Your task to perform on an android device: Search for the best rated 150-piece drill bit set on Aliexpress. Image 0: 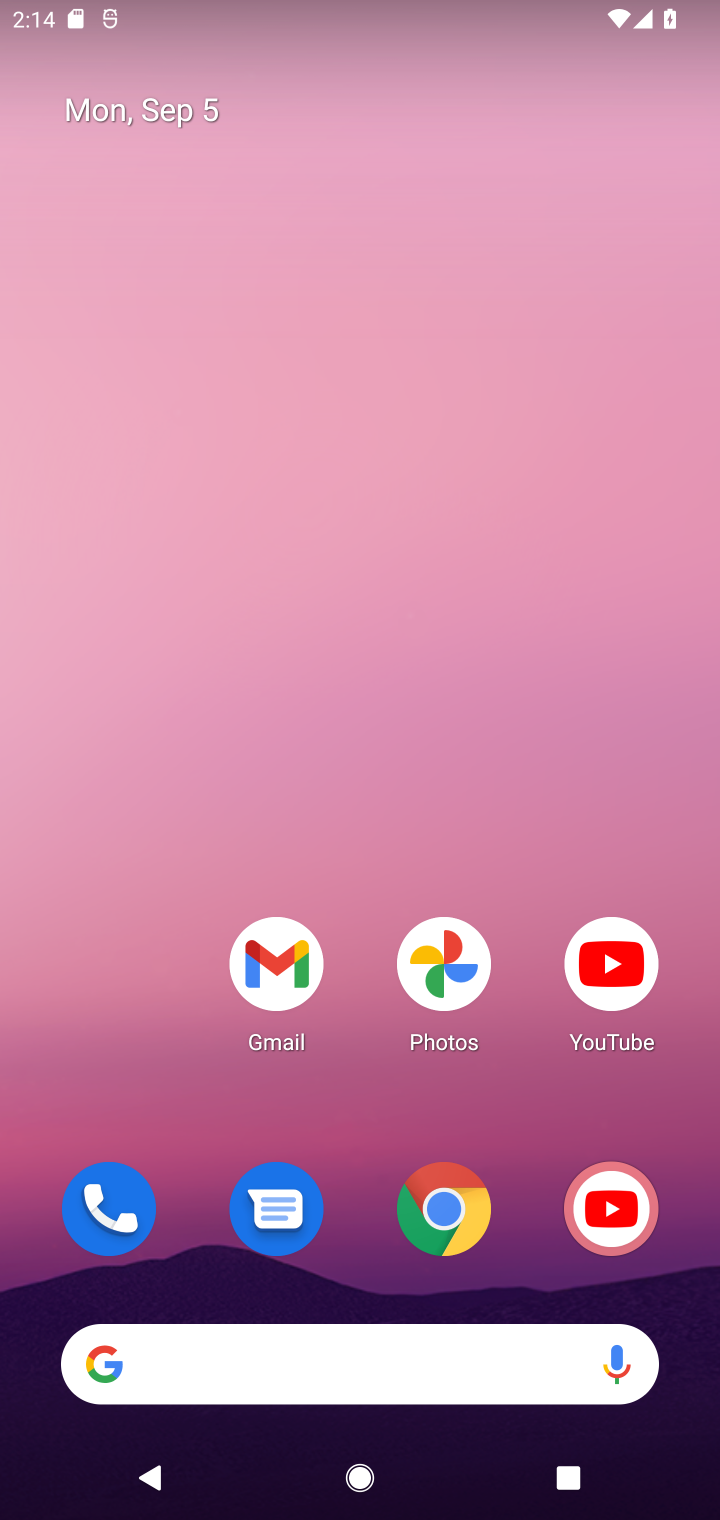
Step 0: drag from (273, 1314) to (409, 294)
Your task to perform on an android device: Search for the best rated 150-piece drill bit set on Aliexpress. Image 1: 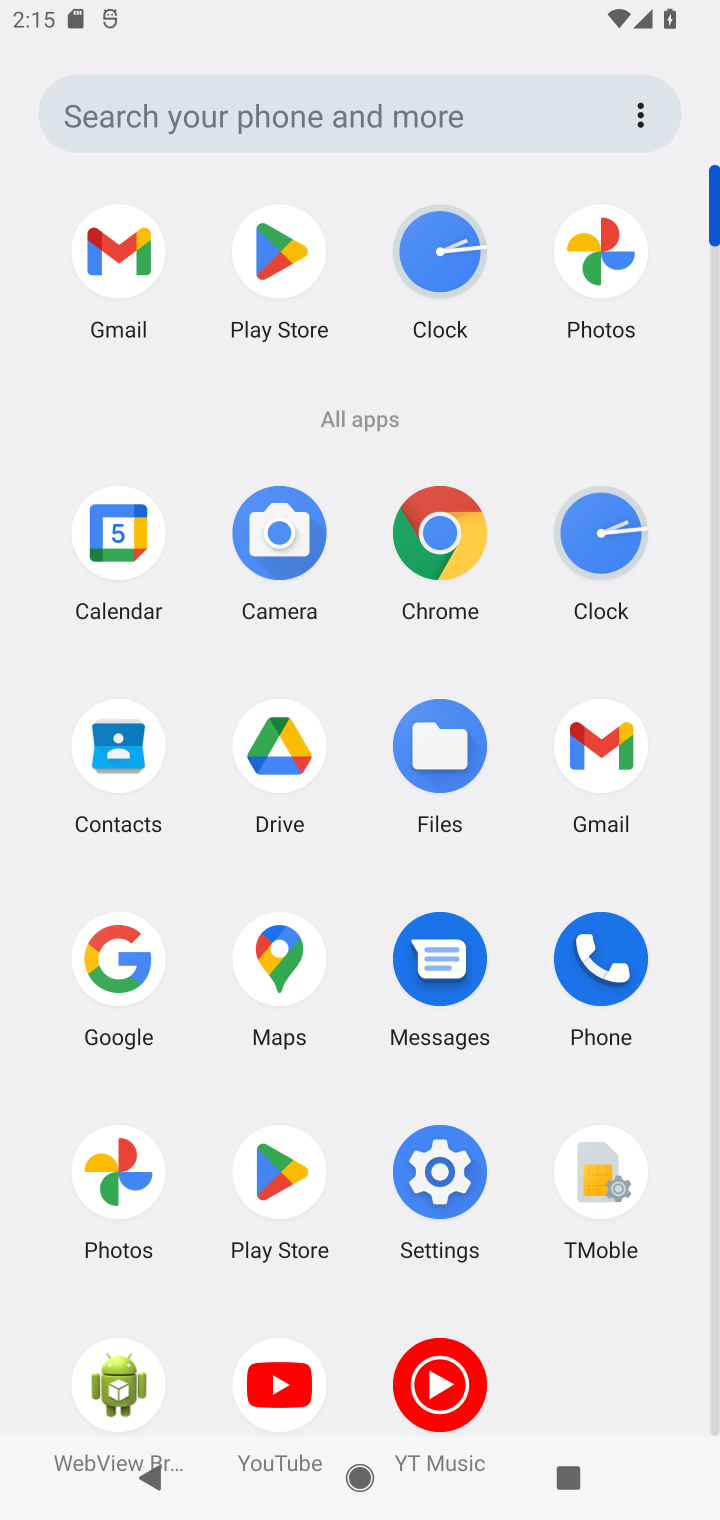
Step 1: click (112, 974)
Your task to perform on an android device: Search for the best rated 150-piece drill bit set on Aliexpress. Image 2: 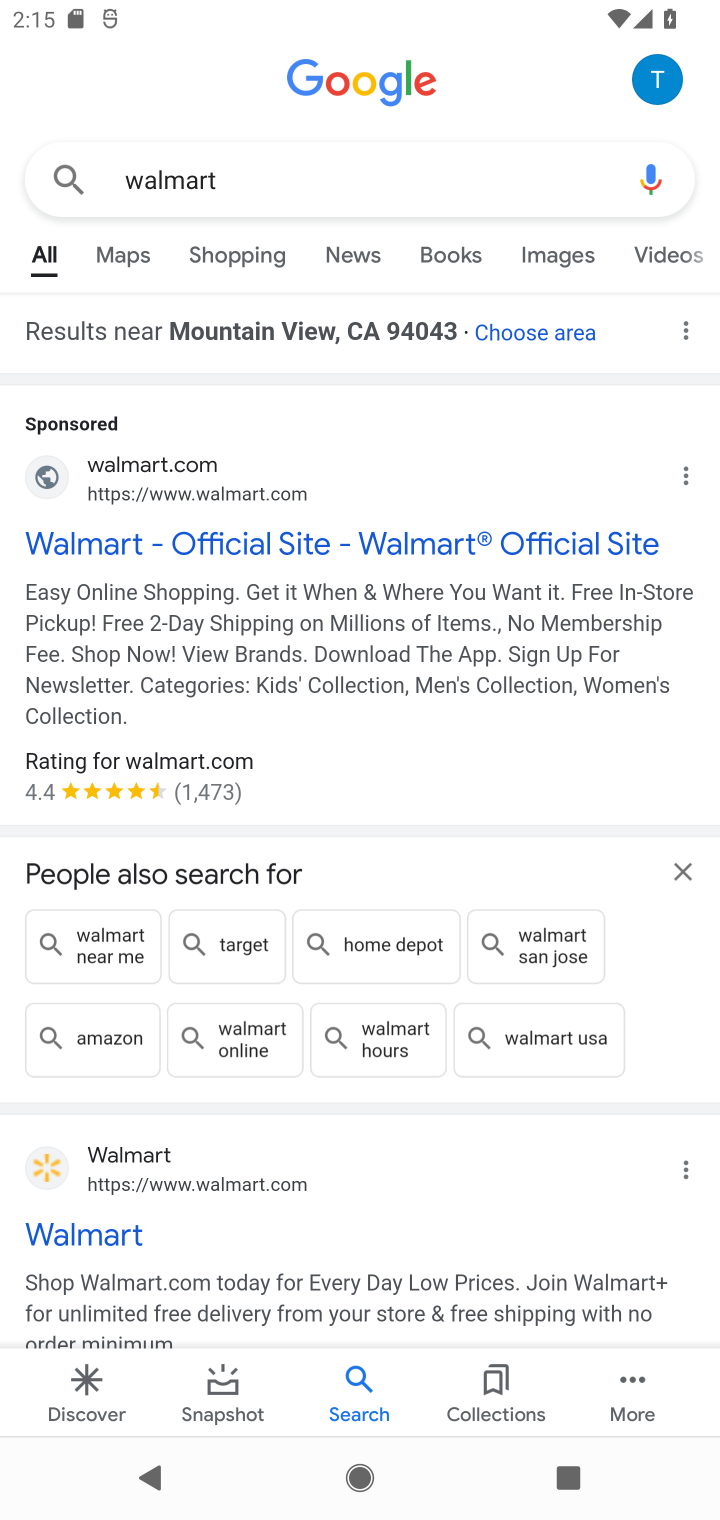
Step 2: click (245, 178)
Your task to perform on an android device: Search for the best rated 150-piece drill bit set on Aliexpress. Image 3: 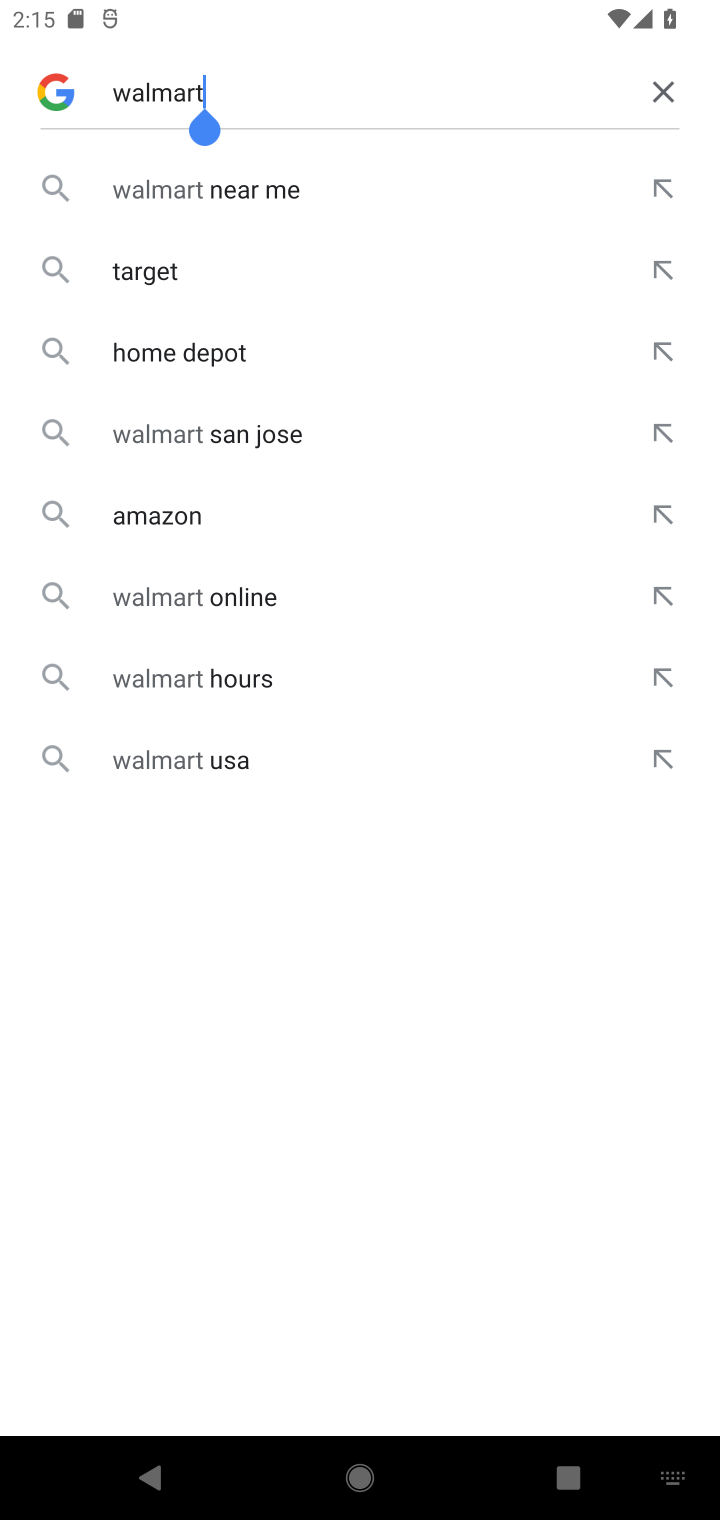
Step 3: click (668, 91)
Your task to perform on an android device: Search for the best rated 150-piece drill bit set on Aliexpress. Image 4: 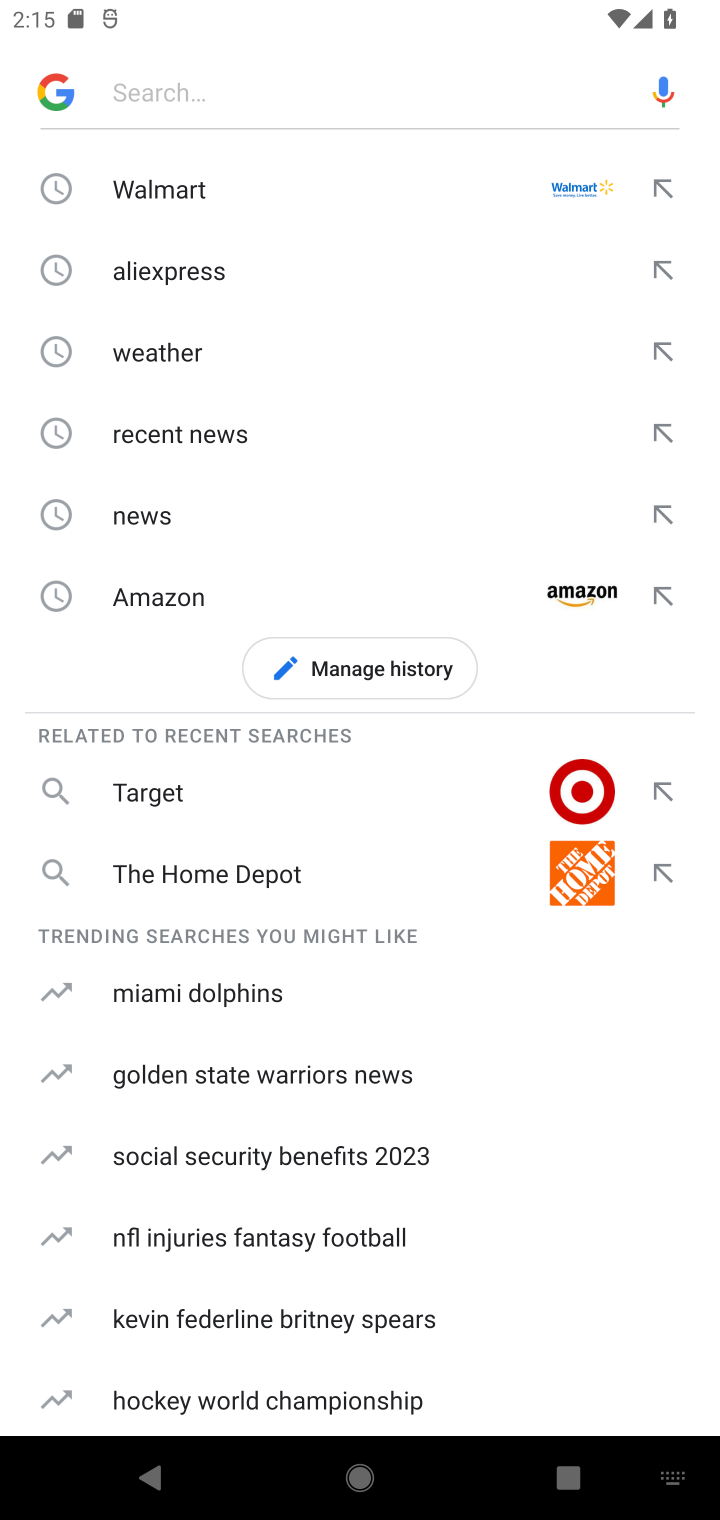
Step 4: type "Aliexpress."
Your task to perform on an android device: Search for the best rated 150-piece drill bit set on Aliexpress. Image 5: 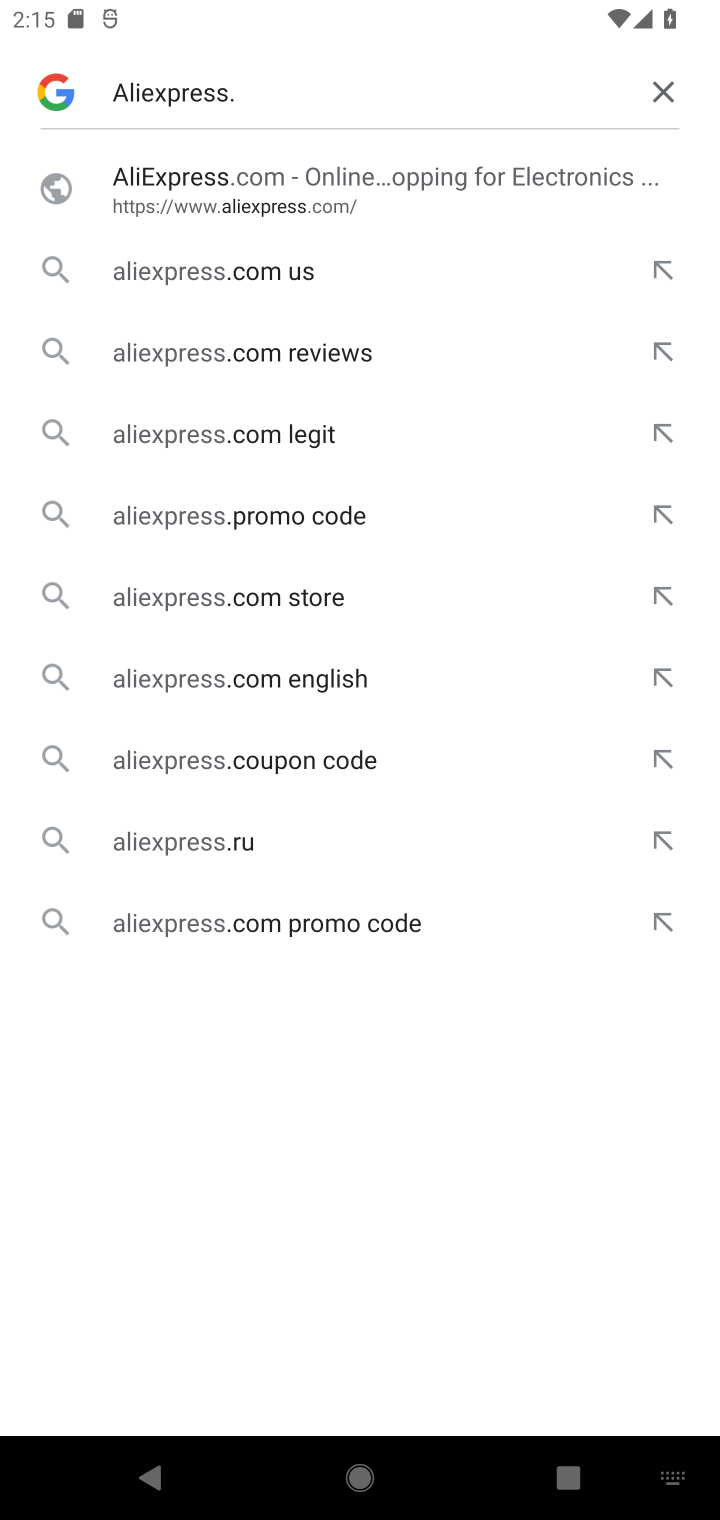
Step 5: click (239, 176)
Your task to perform on an android device: Search for the best rated 150-piece drill bit set on Aliexpress. Image 6: 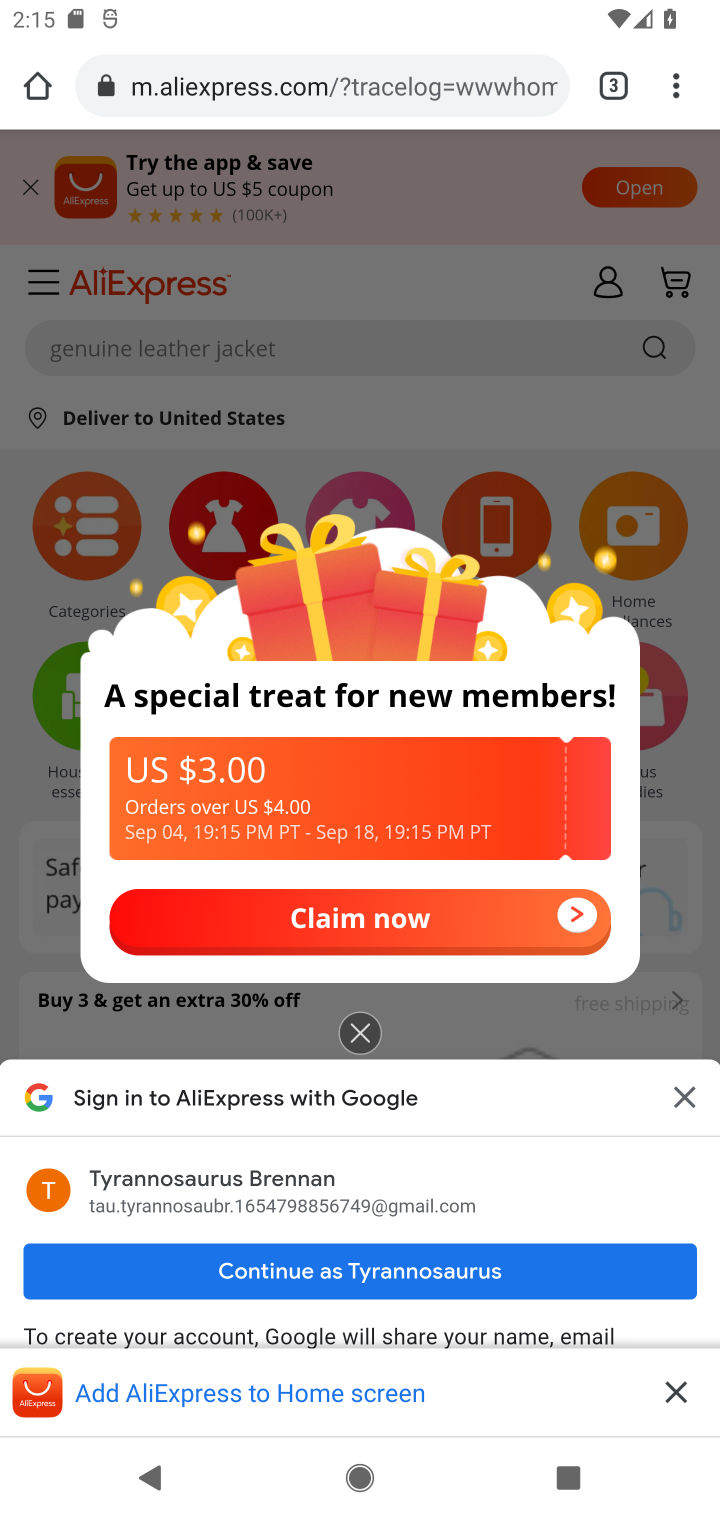
Step 6: click (171, 359)
Your task to perform on an android device: Search for the best rated 150-piece drill bit set on Aliexpress. Image 7: 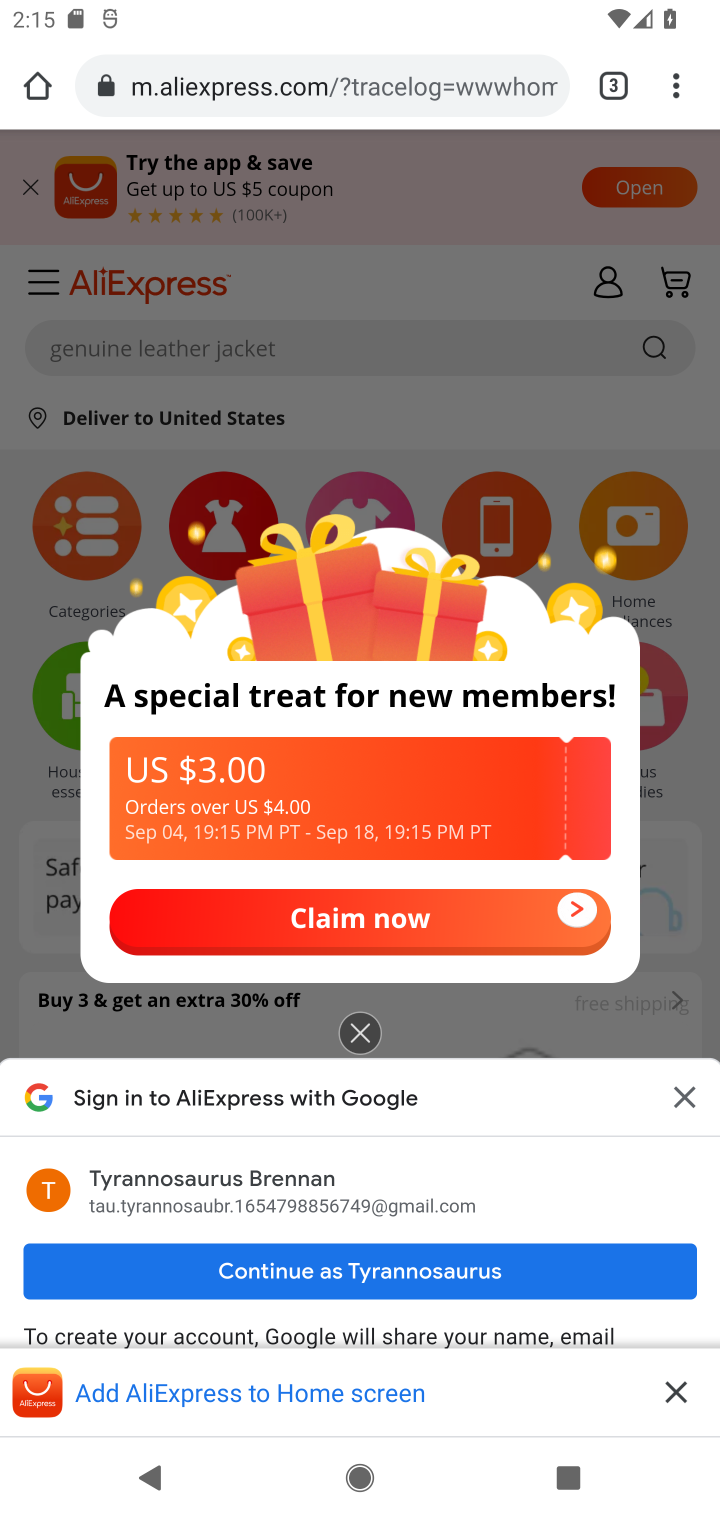
Step 7: click (360, 1036)
Your task to perform on an android device: Search for the best rated 150-piece drill bit set on Aliexpress. Image 8: 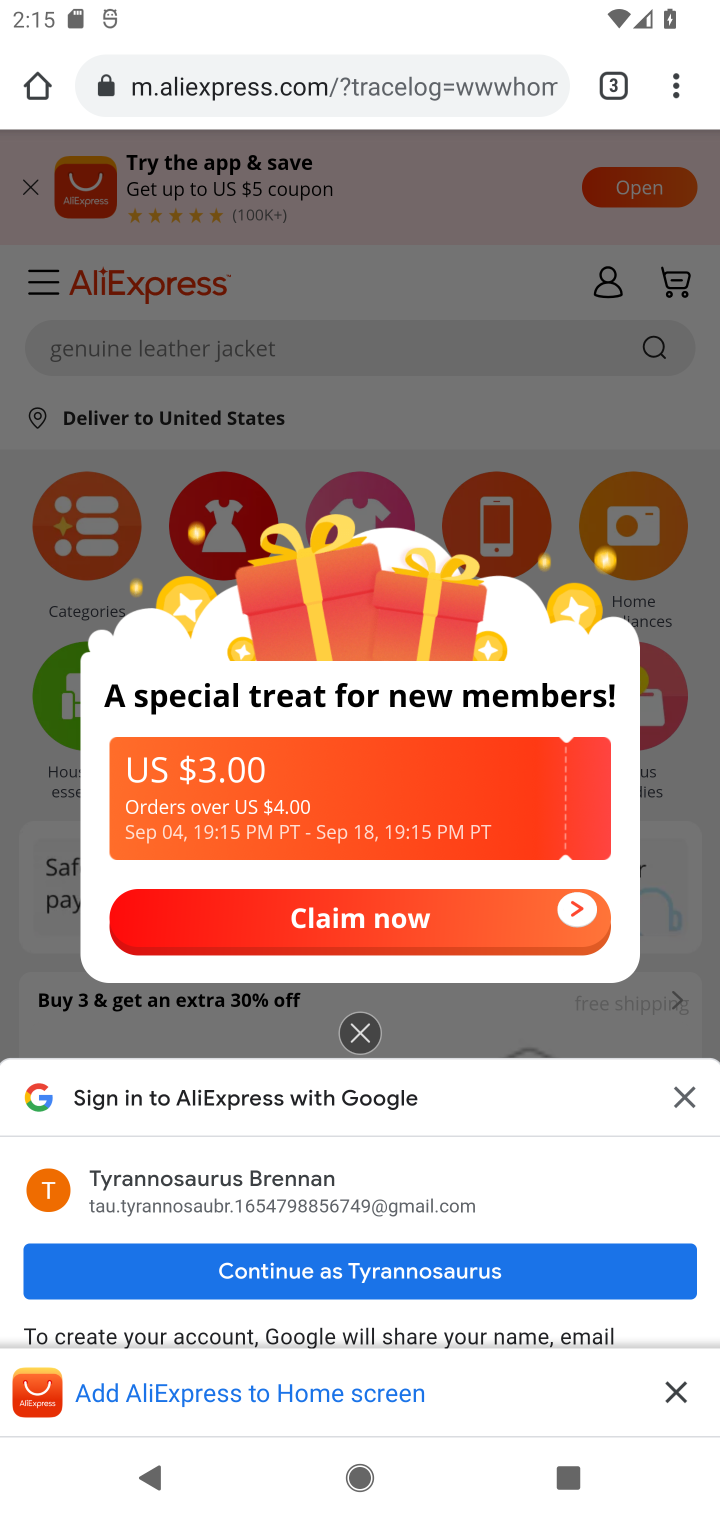
Step 8: click (360, 1036)
Your task to perform on an android device: Search for the best rated 150-piece drill bit set on Aliexpress. Image 9: 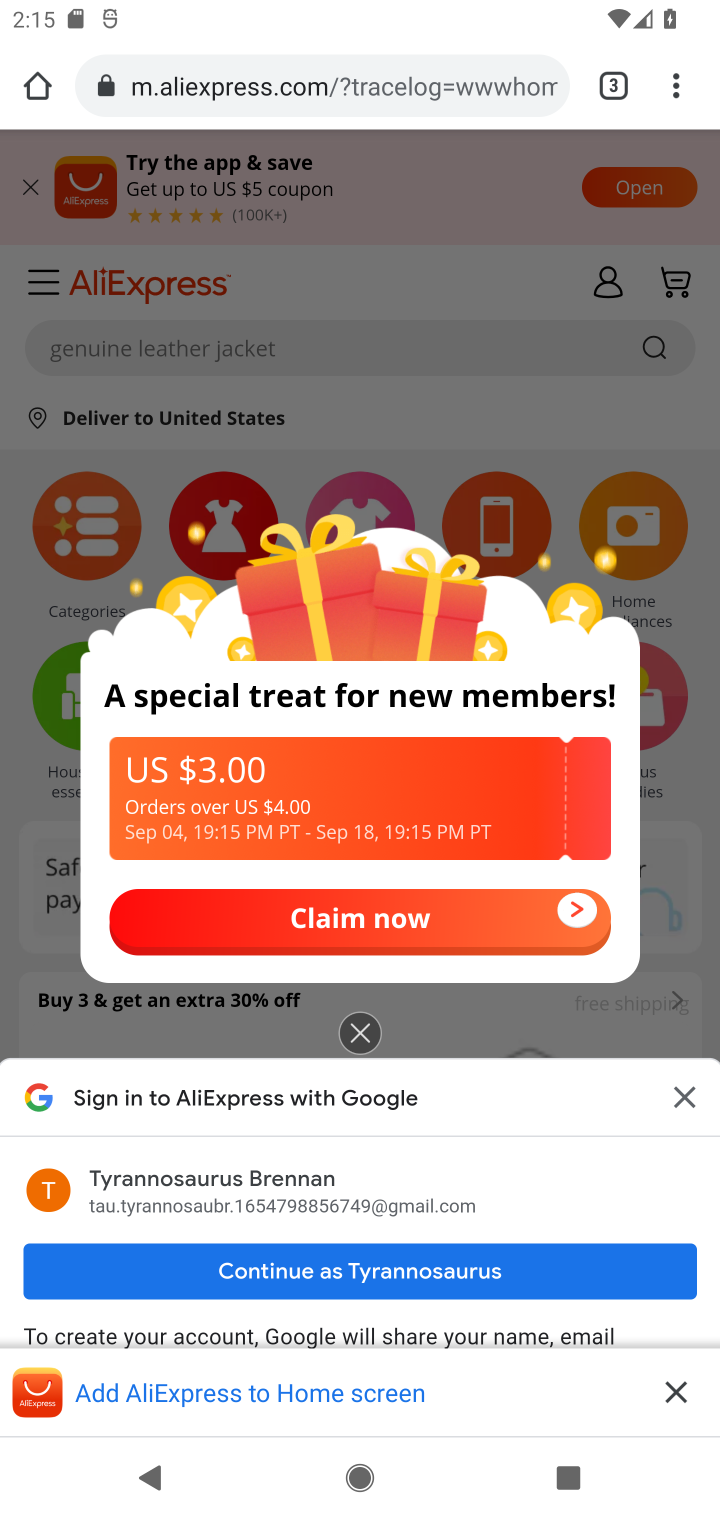
Step 9: click (692, 1093)
Your task to perform on an android device: Search for the best rated 150-piece drill bit set on Aliexpress. Image 10: 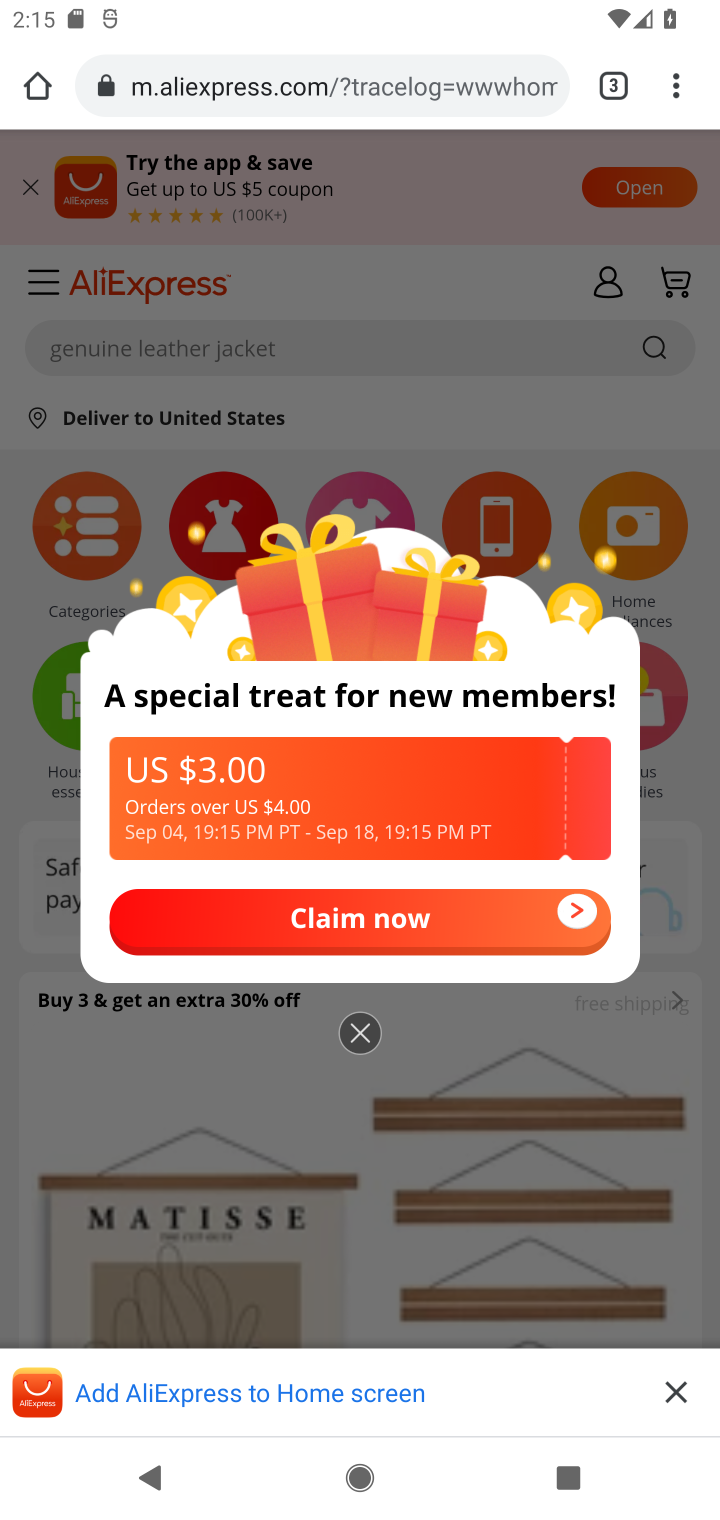
Step 10: click (366, 1045)
Your task to perform on an android device: Search for the best rated 150-piece drill bit set on Aliexpress. Image 11: 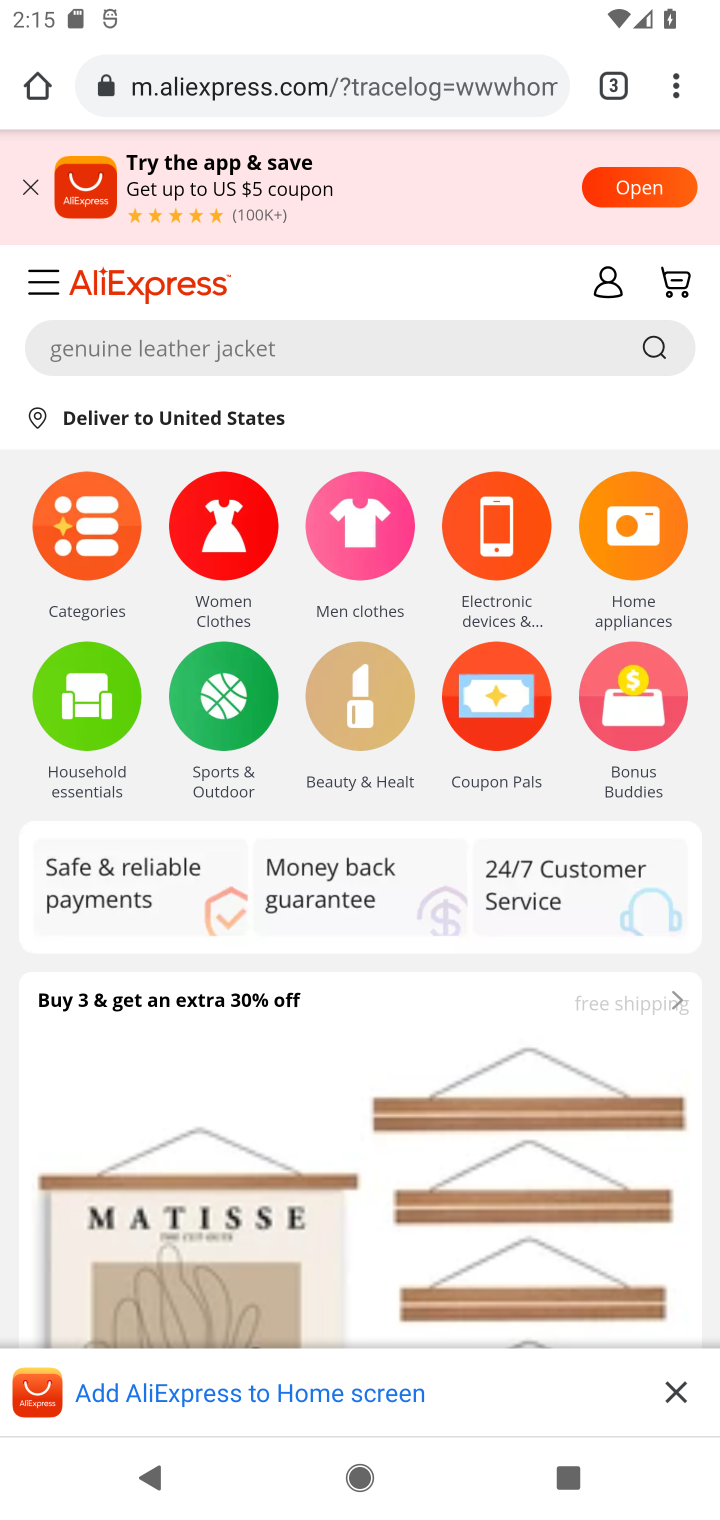
Step 11: click (173, 348)
Your task to perform on an android device: Search for the best rated 150-piece drill bit set on Aliexpress. Image 12: 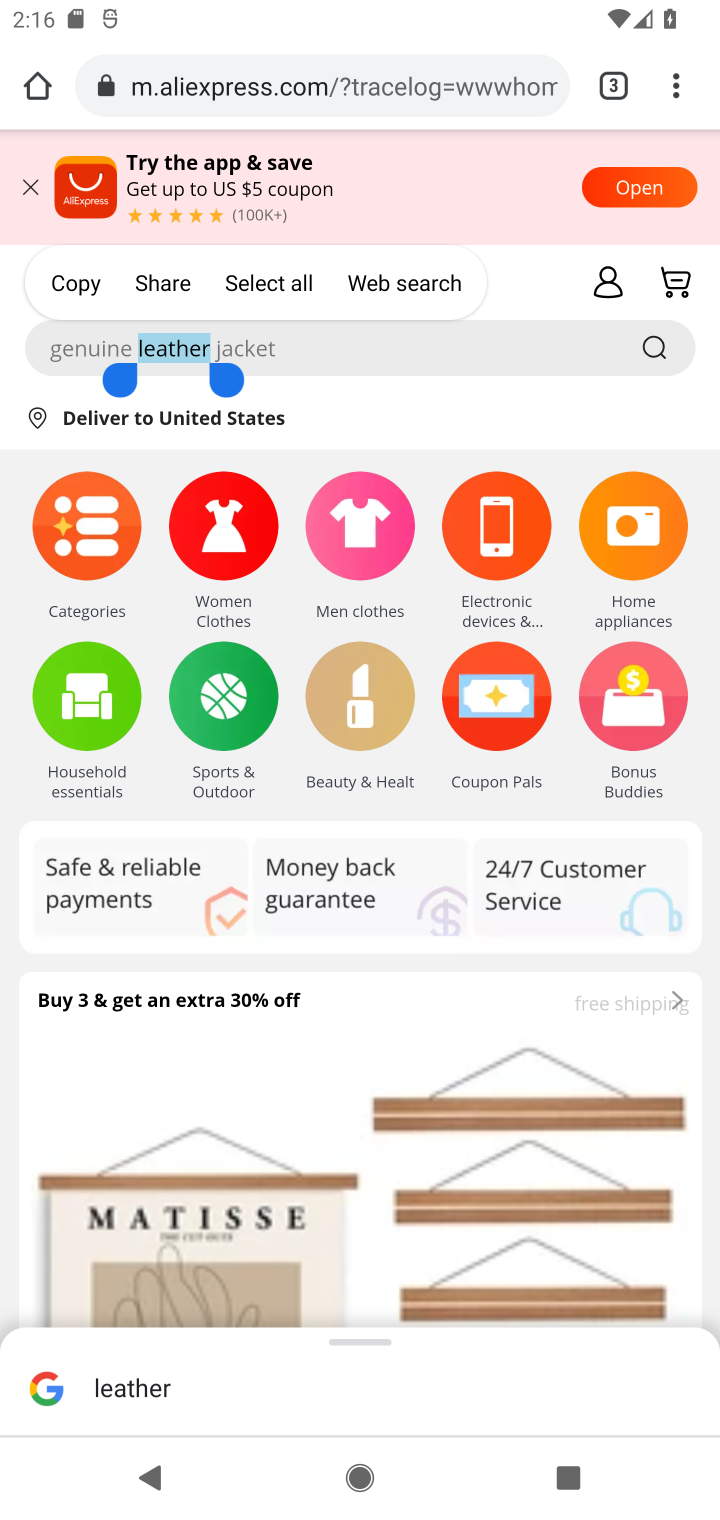
Step 12: click (558, 346)
Your task to perform on an android device: Search for the best rated 150-piece drill bit set on Aliexpress. Image 13: 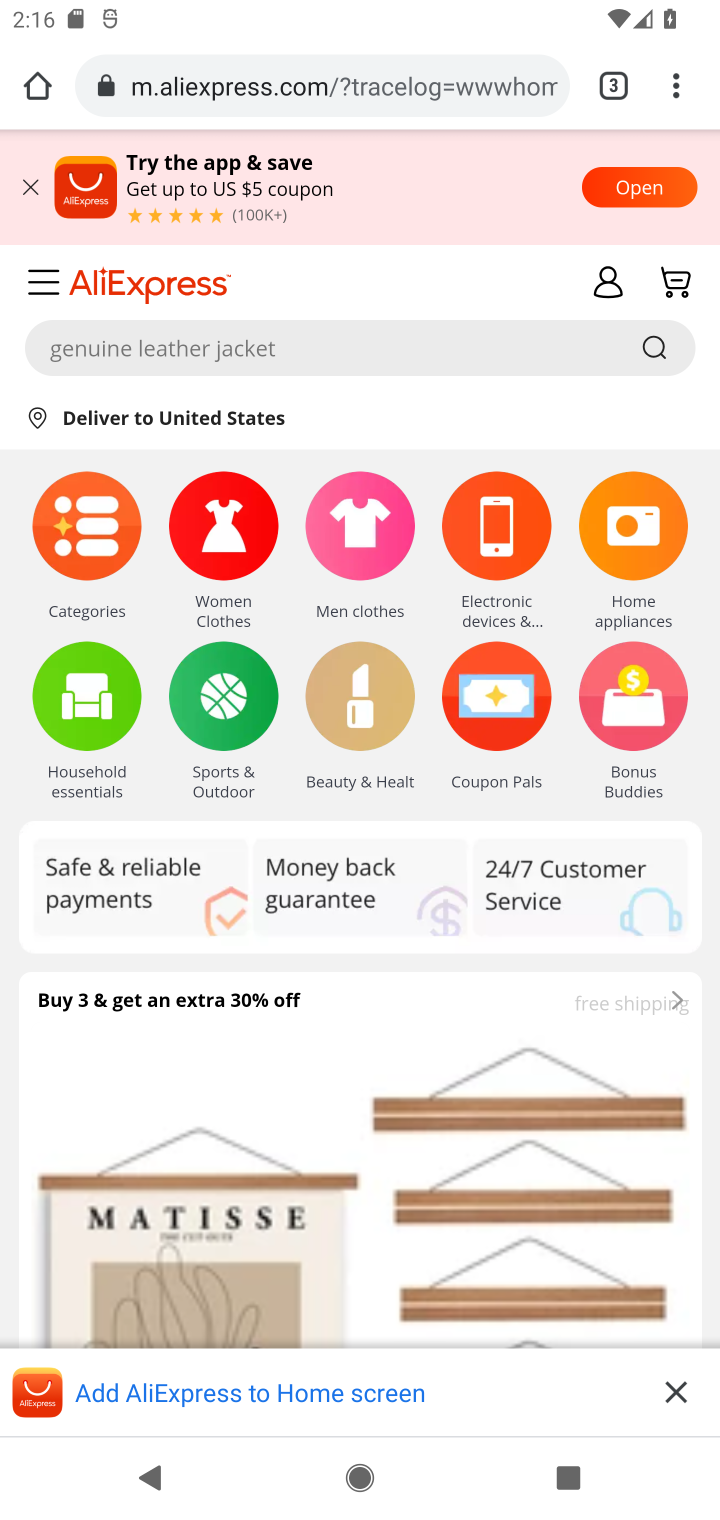
Step 13: click (659, 344)
Your task to perform on an android device: Search for the best rated 150-piece drill bit set on Aliexpress. Image 14: 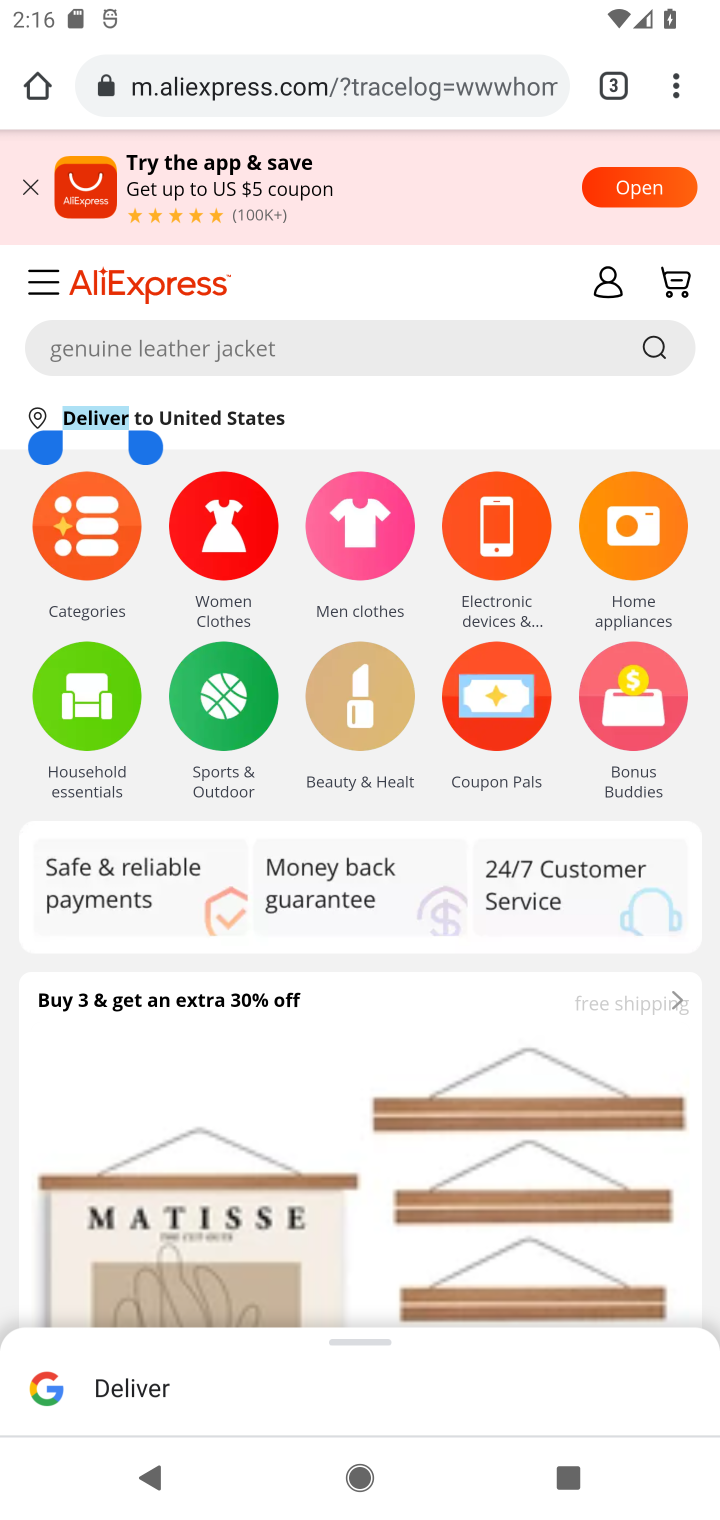
Step 14: click (105, 354)
Your task to perform on an android device: Search for the best rated 150-piece drill bit set on Aliexpress. Image 15: 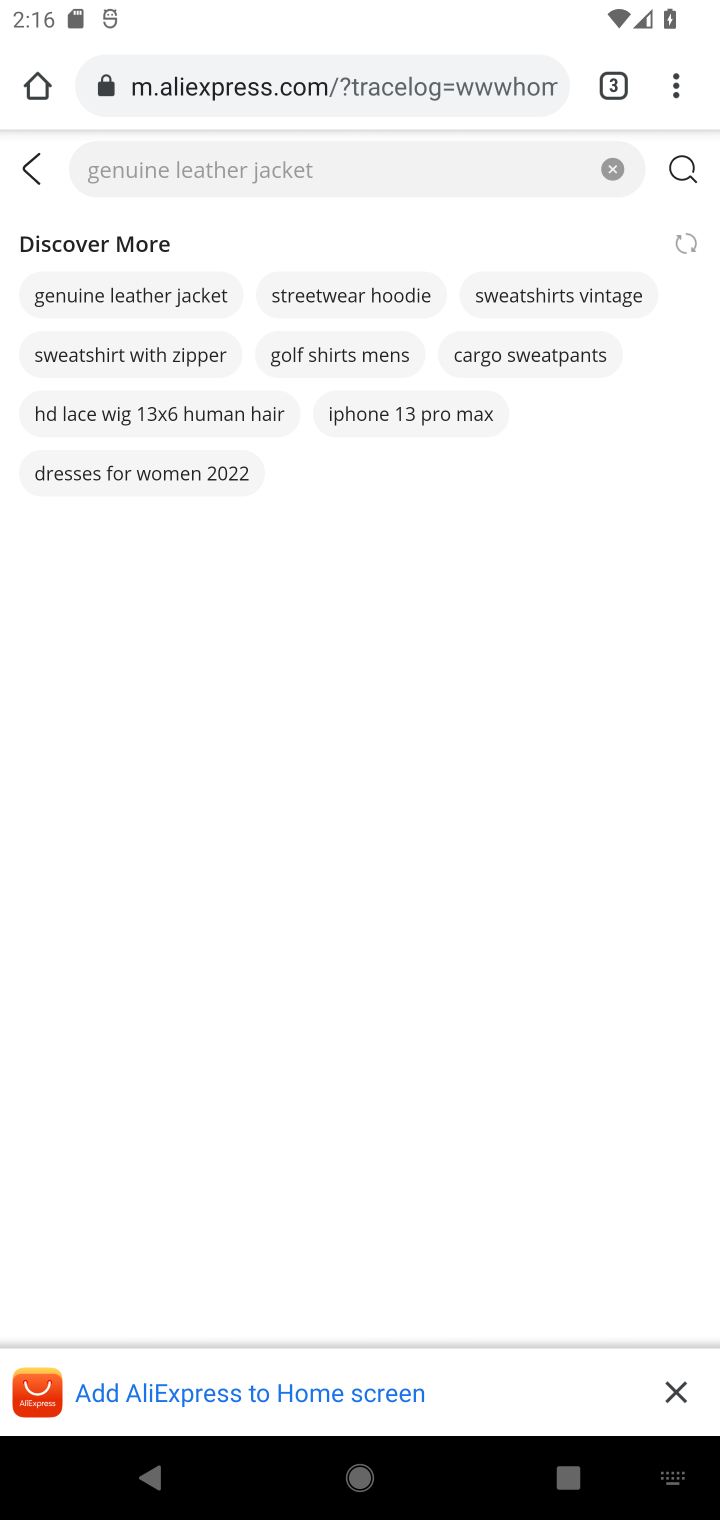
Step 15: type "150-piece drill bit set"
Your task to perform on an android device: Search for the best rated 150-piece drill bit set on Aliexpress. Image 16: 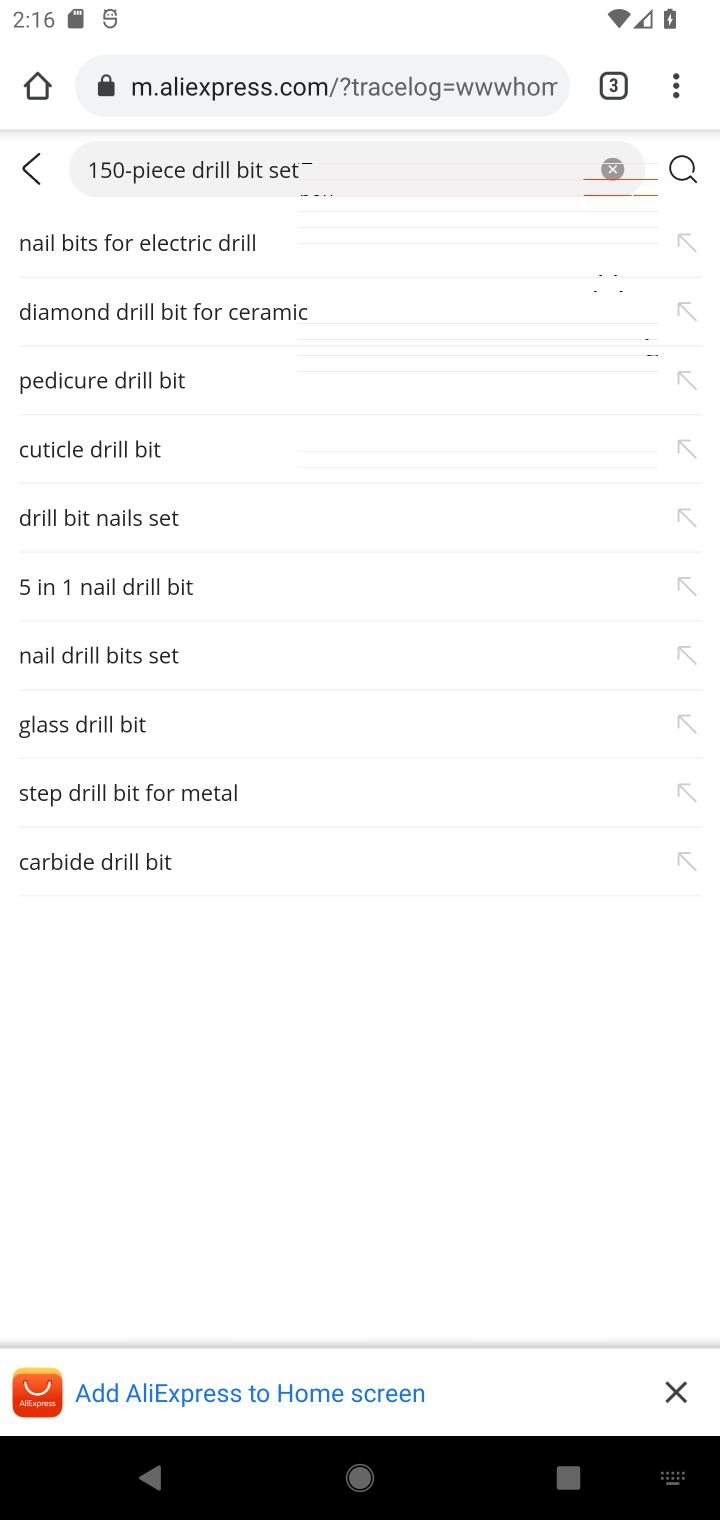
Step 16: click (123, 233)
Your task to perform on an android device: Search for the best rated 150-piece drill bit set on Aliexpress. Image 17: 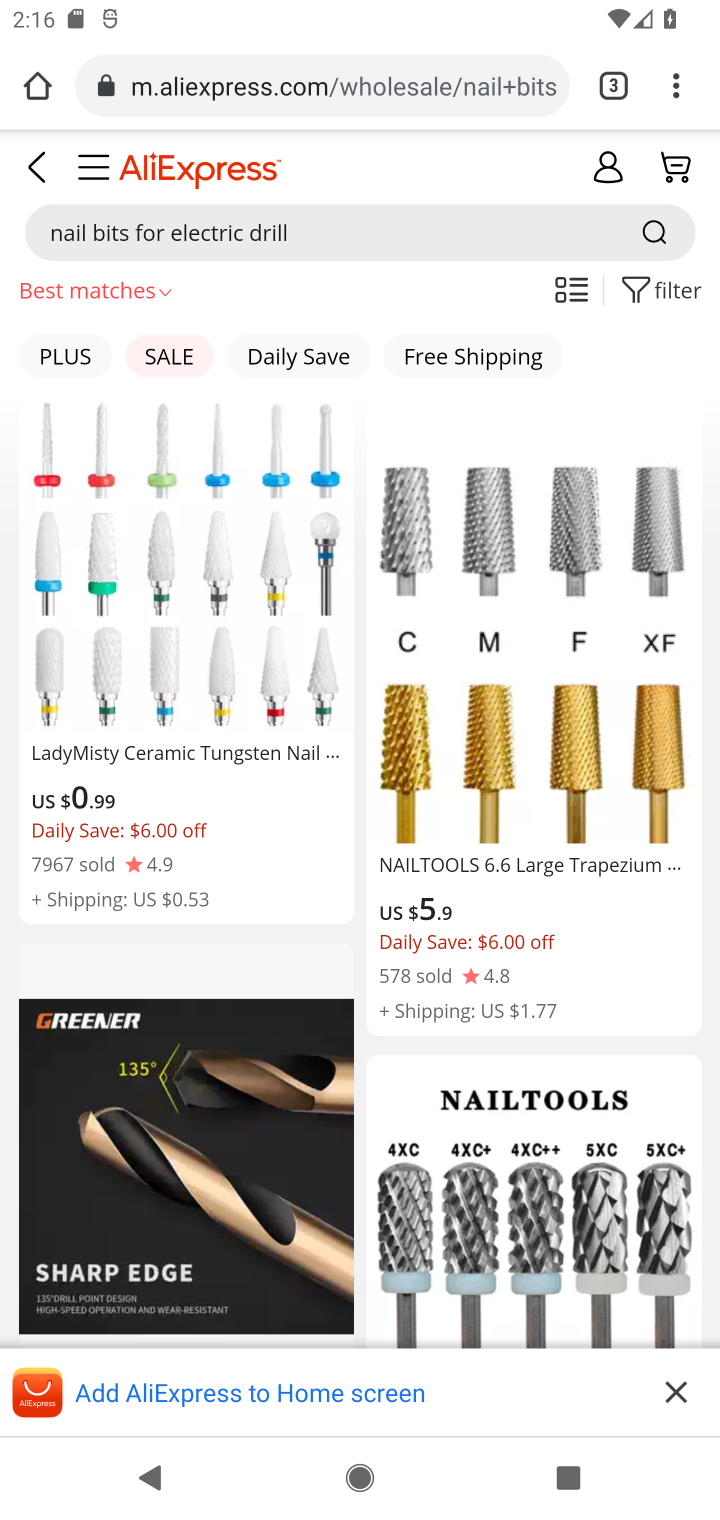
Step 17: click (494, 527)
Your task to perform on an android device: Search for the best rated 150-piece drill bit set on Aliexpress. Image 18: 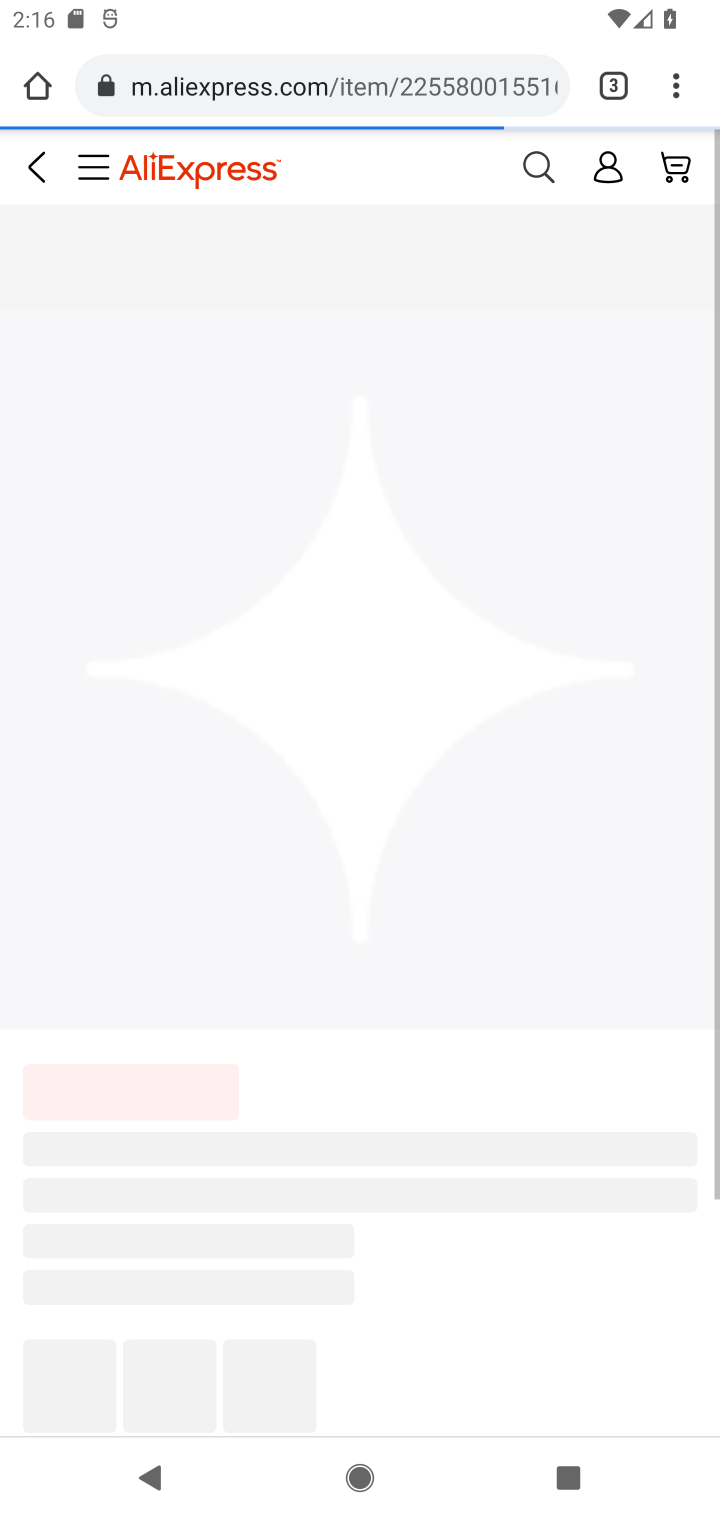
Step 18: task complete